Your task to perform on an android device: check the backup settings in the google photos Image 0: 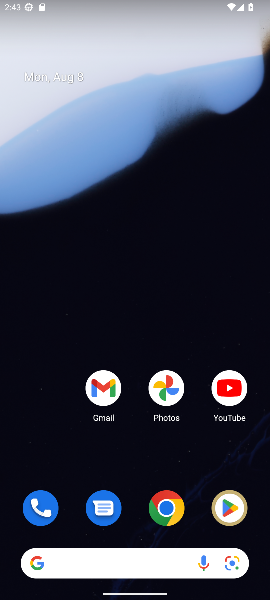
Step 0: click (167, 387)
Your task to perform on an android device: check the backup settings in the google photos Image 1: 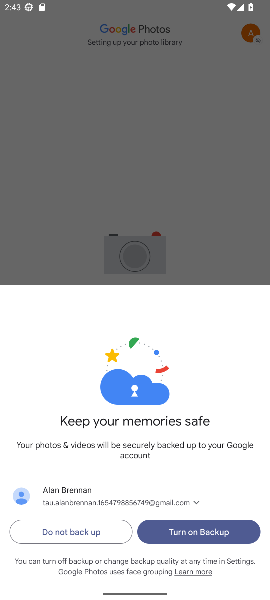
Step 1: click (183, 526)
Your task to perform on an android device: check the backup settings in the google photos Image 2: 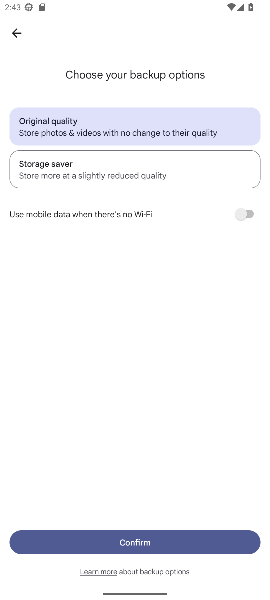
Step 2: click (144, 547)
Your task to perform on an android device: check the backup settings in the google photos Image 3: 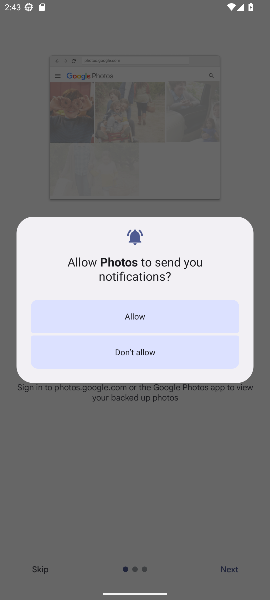
Step 3: click (145, 316)
Your task to perform on an android device: check the backup settings in the google photos Image 4: 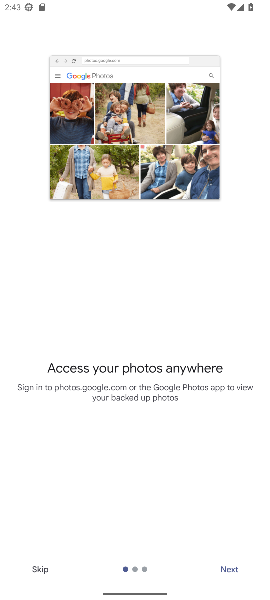
Step 4: click (228, 575)
Your task to perform on an android device: check the backup settings in the google photos Image 5: 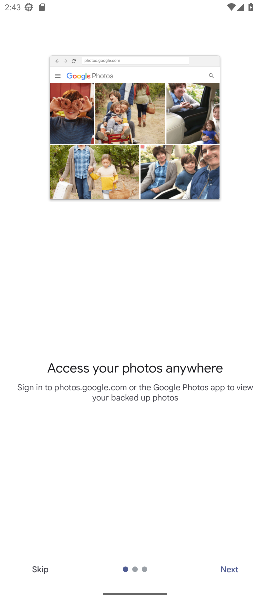
Step 5: click (228, 575)
Your task to perform on an android device: check the backup settings in the google photos Image 6: 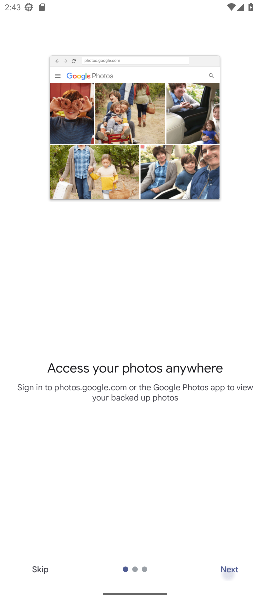
Step 6: click (228, 575)
Your task to perform on an android device: check the backup settings in the google photos Image 7: 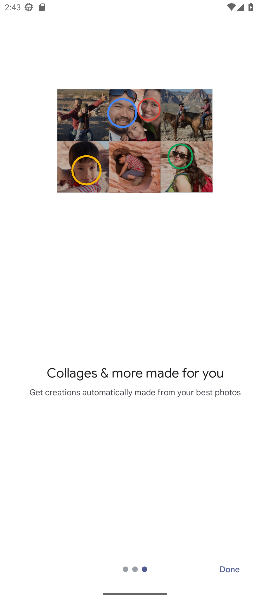
Step 7: click (228, 575)
Your task to perform on an android device: check the backup settings in the google photos Image 8: 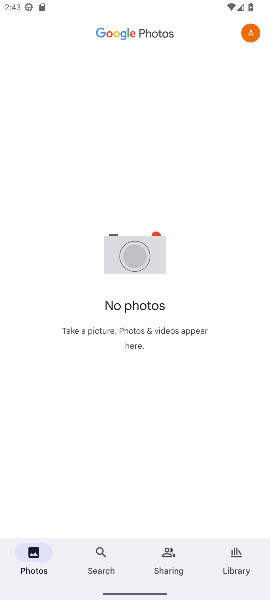
Step 8: click (249, 26)
Your task to perform on an android device: check the backup settings in the google photos Image 9: 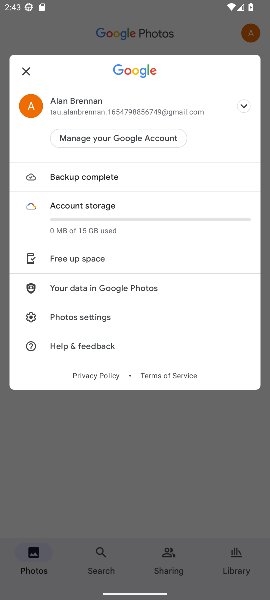
Step 9: click (93, 173)
Your task to perform on an android device: check the backup settings in the google photos Image 10: 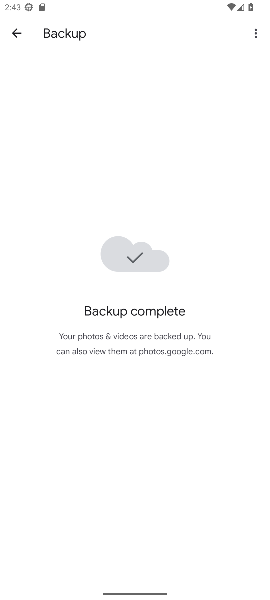
Step 10: click (13, 35)
Your task to perform on an android device: check the backup settings in the google photos Image 11: 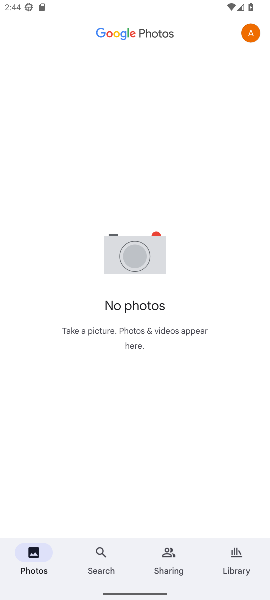
Step 11: click (235, 560)
Your task to perform on an android device: check the backup settings in the google photos Image 12: 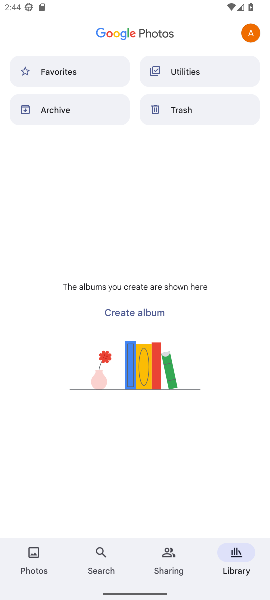
Step 12: click (255, 34)
Your task to perform on an android device: check the backup settings in the google photos Image 13: 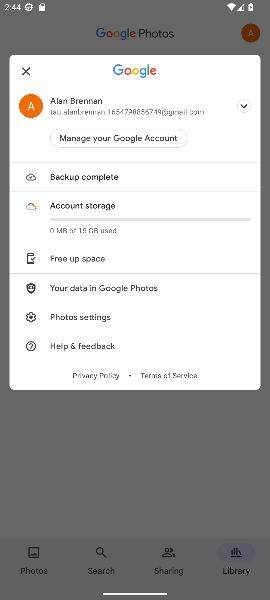
Step 13: click (92, 316)
Your task to perform on an android device: check the backup settings in the google photos Image 14: 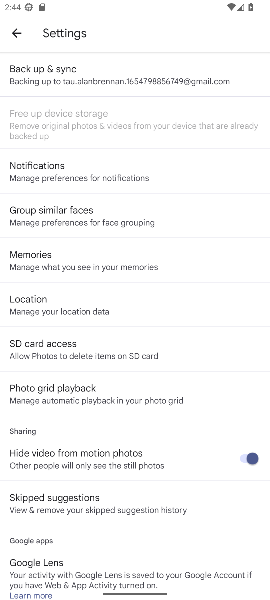
Step 14: click (57, 69)
Your task to perform on an android device: check the backup settings in the google photos Image 15: 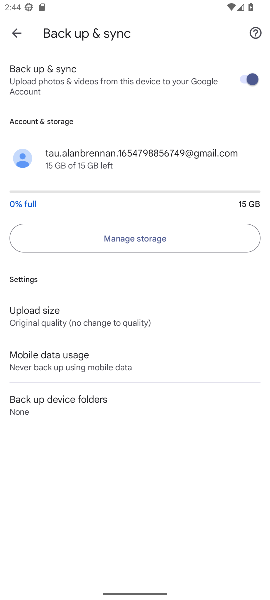
Step 15: task complete